Your task to perform on an android device: Do I have any events today? Image 0: 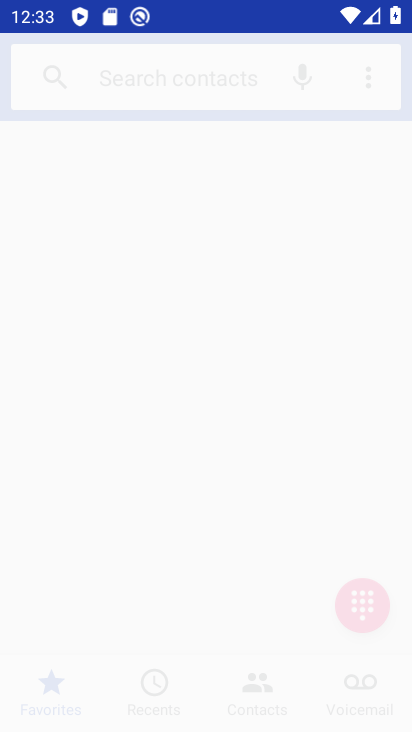
Step 0: drag from (218, 643) to (395, 153)
Your task to perform on an android device: Do I have any events today? Image 1: 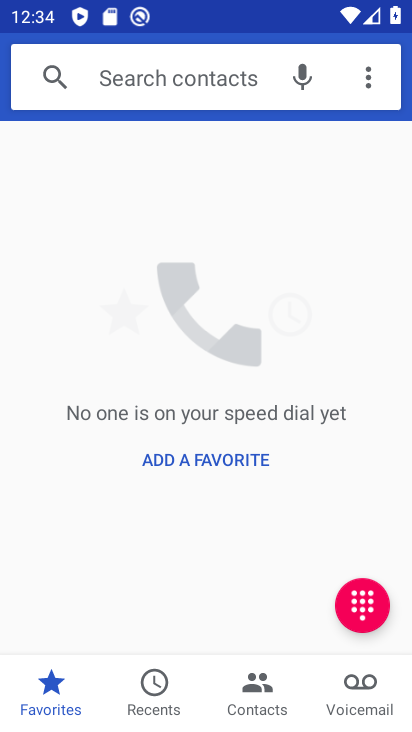
Step 1: press home button
Your task to perform on an android device: Do I have any events today? Image 2: 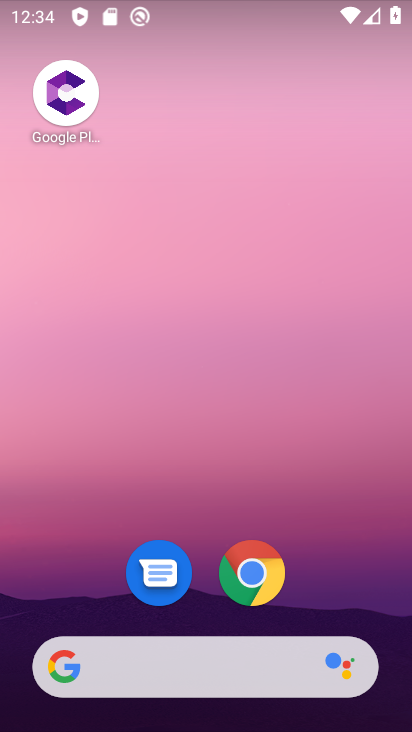
Step 2: drag from (204, 664) to (326, 245)
Your task to perform on an android device: Do I have any events today? Image 3: 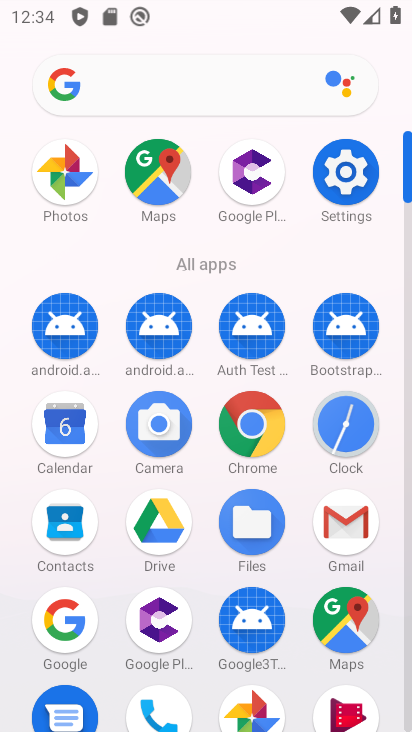
Step 3: click (58, 438)
Your task to perform on an android device: Do I have any events today? Image 4: 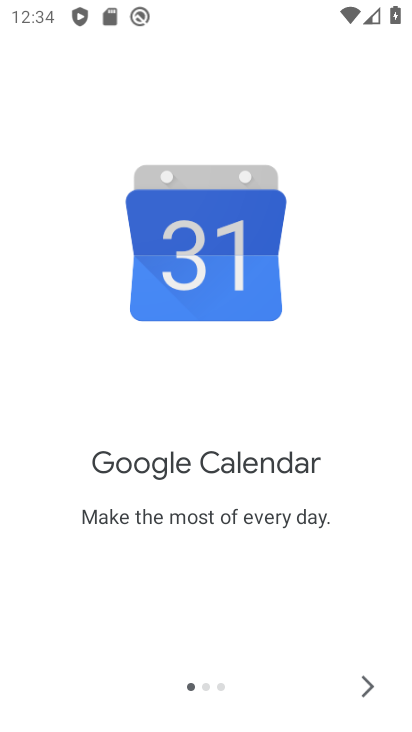
Step 4: click (369, 680)
Your task to perform on an android device: Do I have any events today? Image 5: 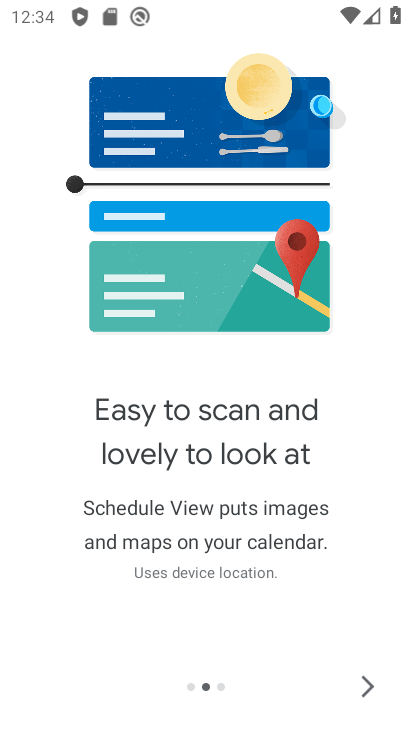
Step 5: click (369, 680)
Your task to perform on an android device: Do I have any events today? Image 6: 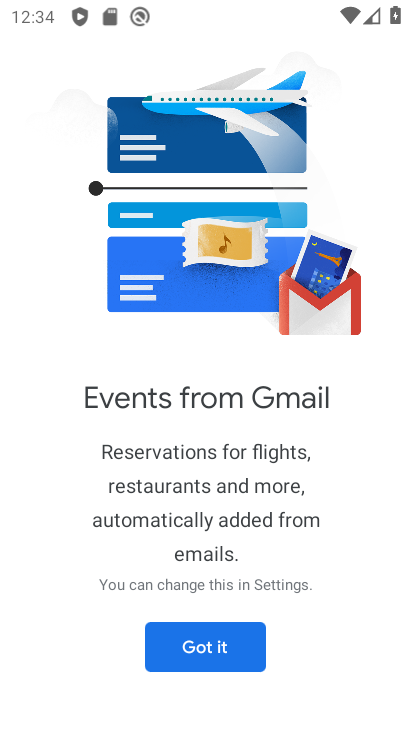
Step 6: click (222, 645)
Your task to perform on an android device: Do I have any events today? Image 7: 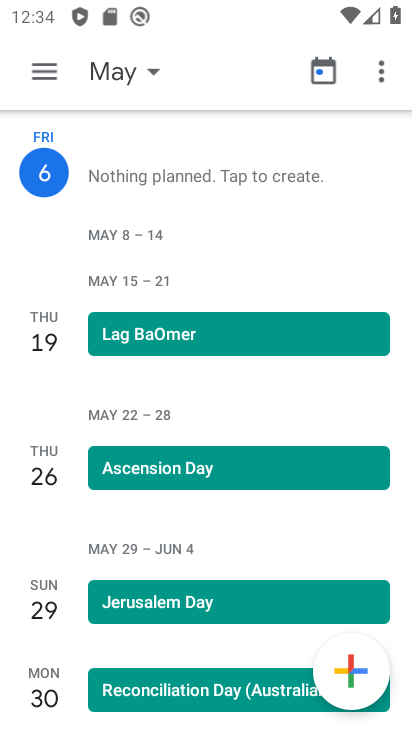
Step 7: click (113, 79)
Your task to perform on an android device: Do I have any events today? Image 8: 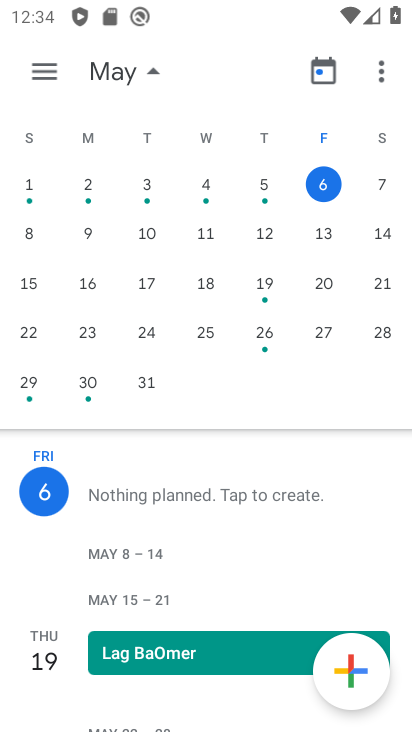
Step 8: click (38, 71)
Your task to perform on an android device: Do I have any events today? Image 9: 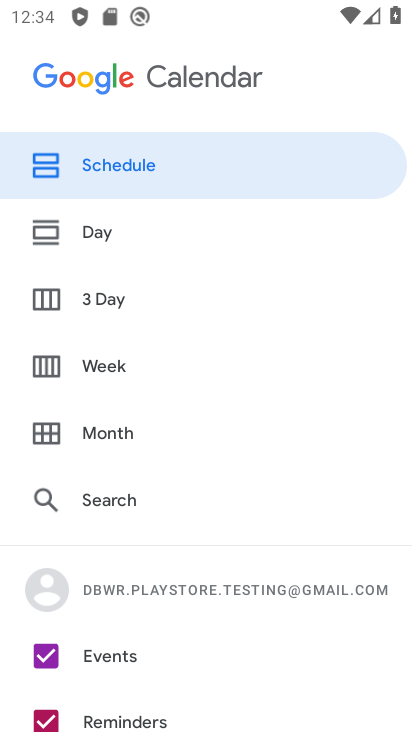
Step 9: click (107, 173)
Your task to perform on an android device: Do I have any events today? Image 10: 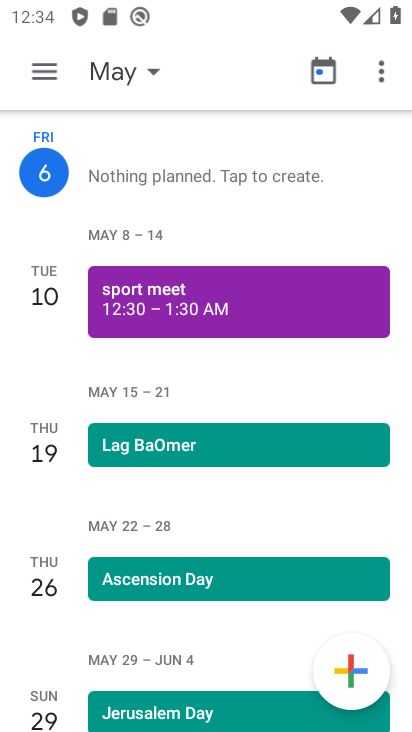
Step 10: task complete